Your task to perform on an android device: What's the weather today? Image 0: 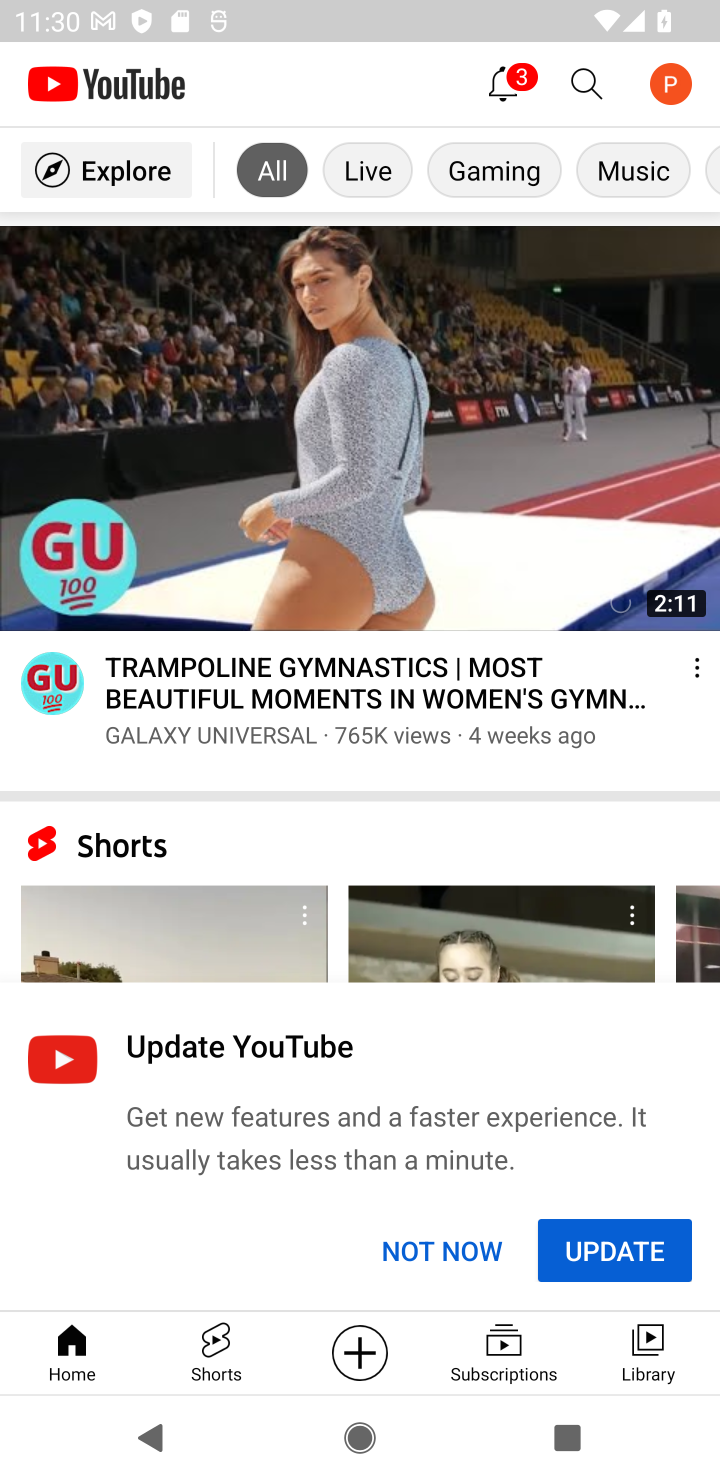
Step 0: press home button
Your task to perform on an android device: What's the weather today? Image 1: 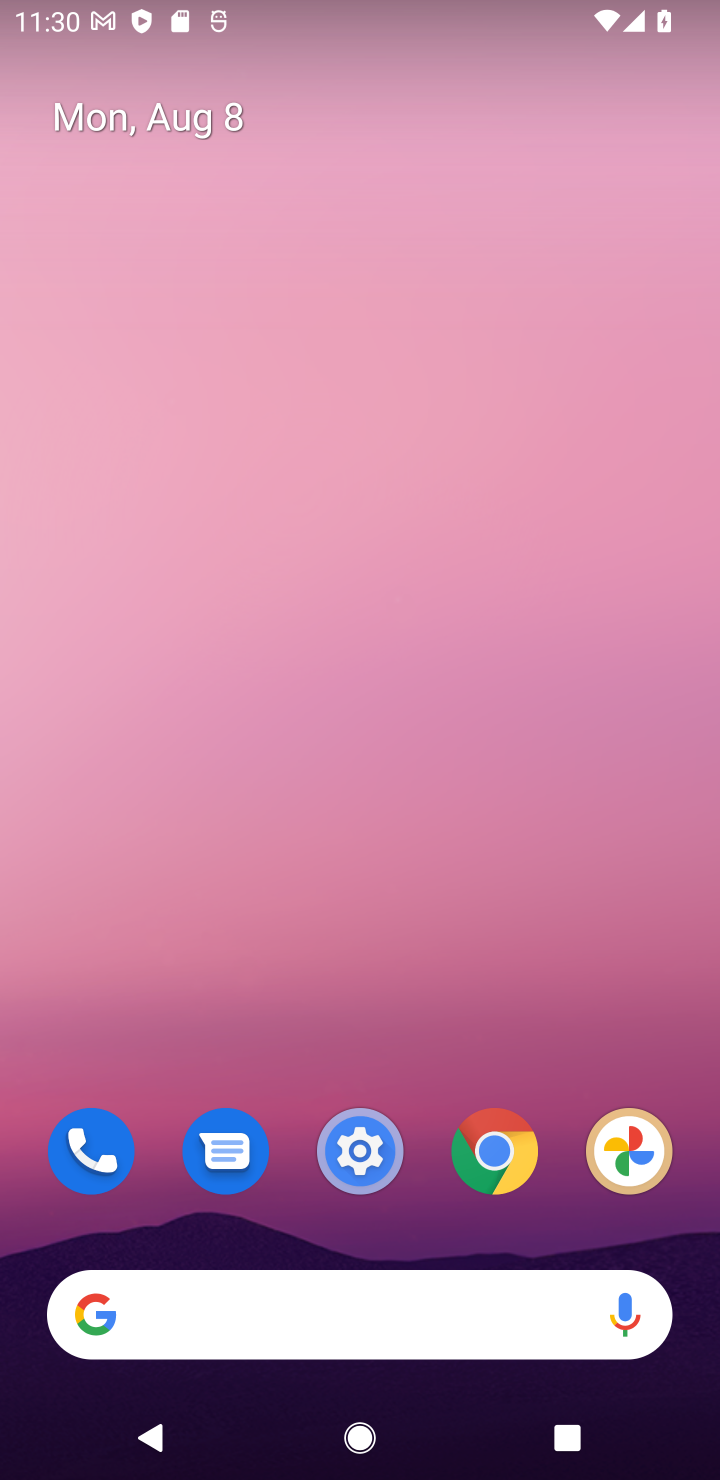
Step 1: drag from (243, 1217) to (251, 296)
Your task to perform on an android device: What's the weather today? Image 2: 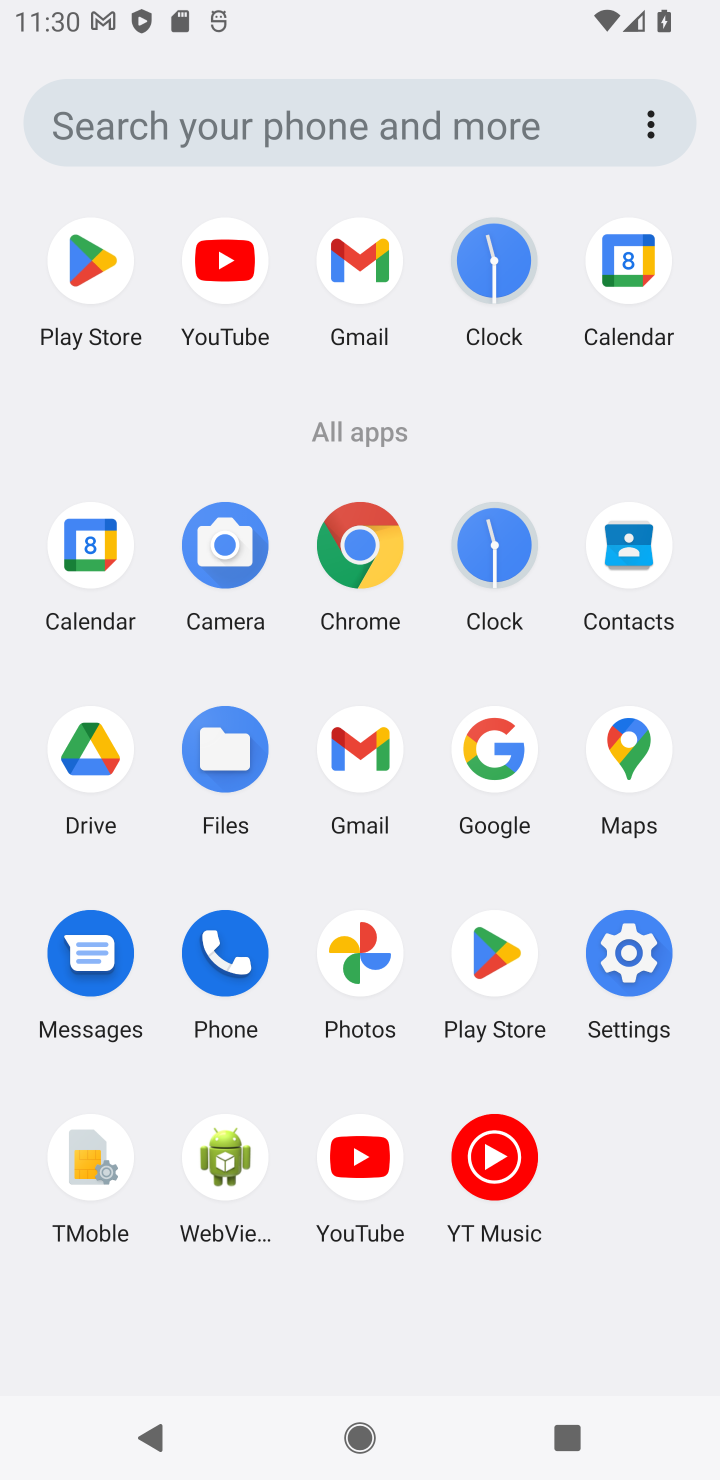
Step 2: click (620, 960)
Your task to perform on an android device: What's the weather today? Image 3: 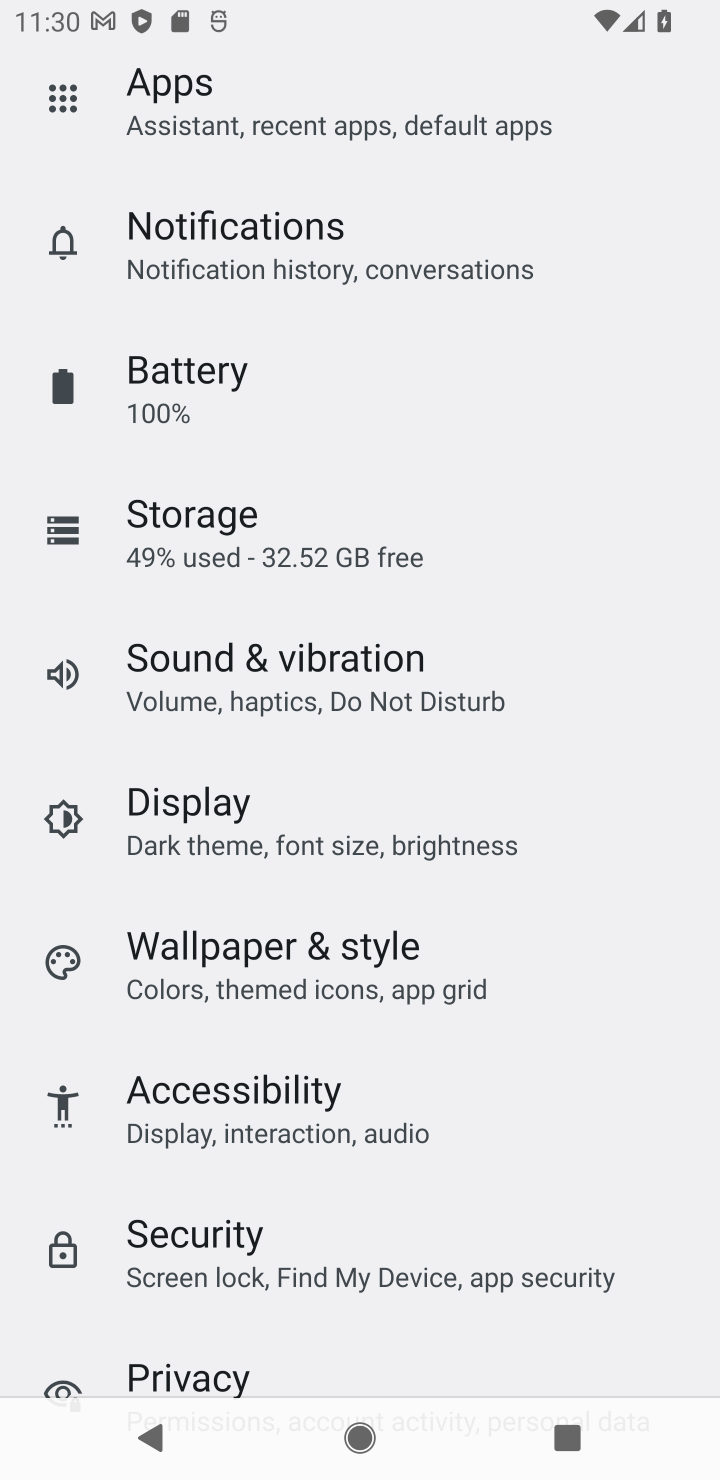
Step 3: press home button
Your task to perform on an android device: What's the weather today? Image 4: 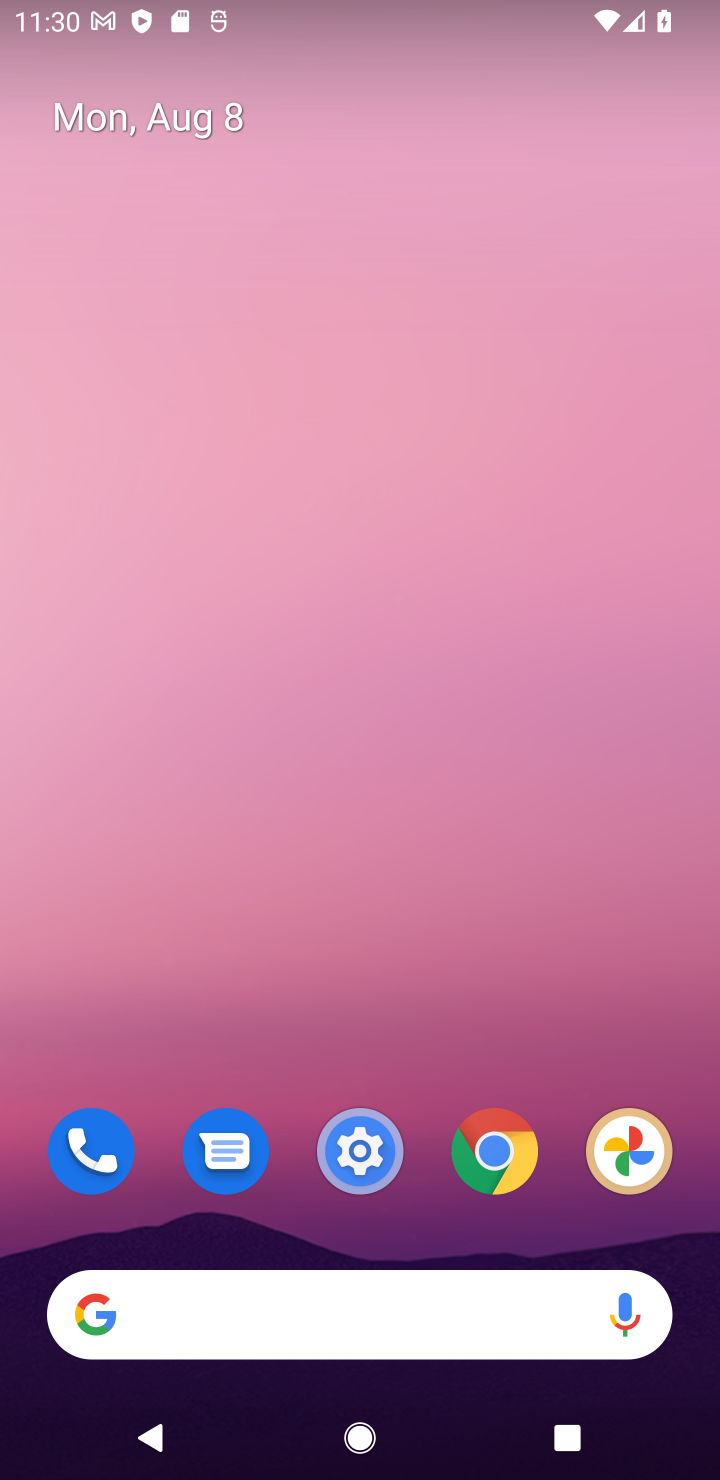
Step 4: drag from (346, 1016) to (346, 585)
Your task to perform on an android device: What's the weather today? Image 5: 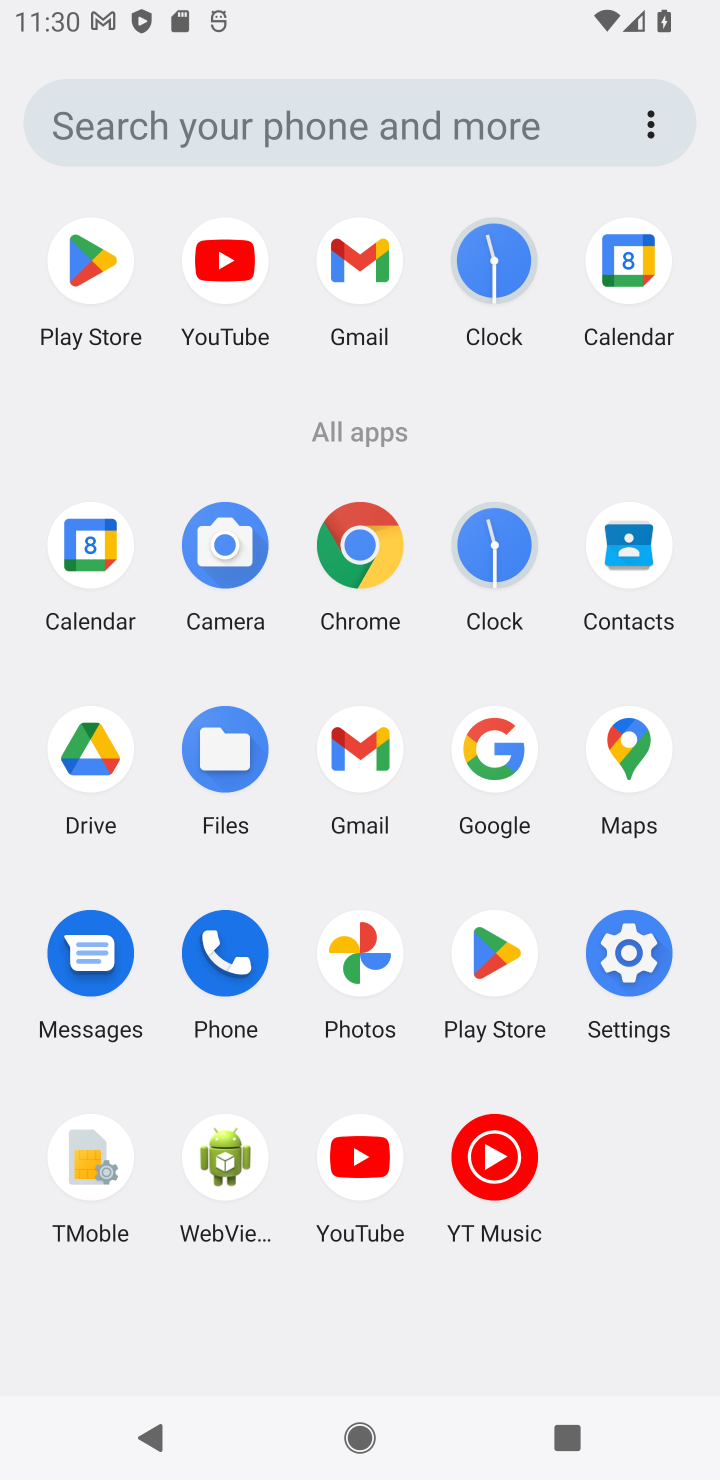
Step 5: click (486, 747)
Your task to perform on an android device: What's the weather today? Image 6: 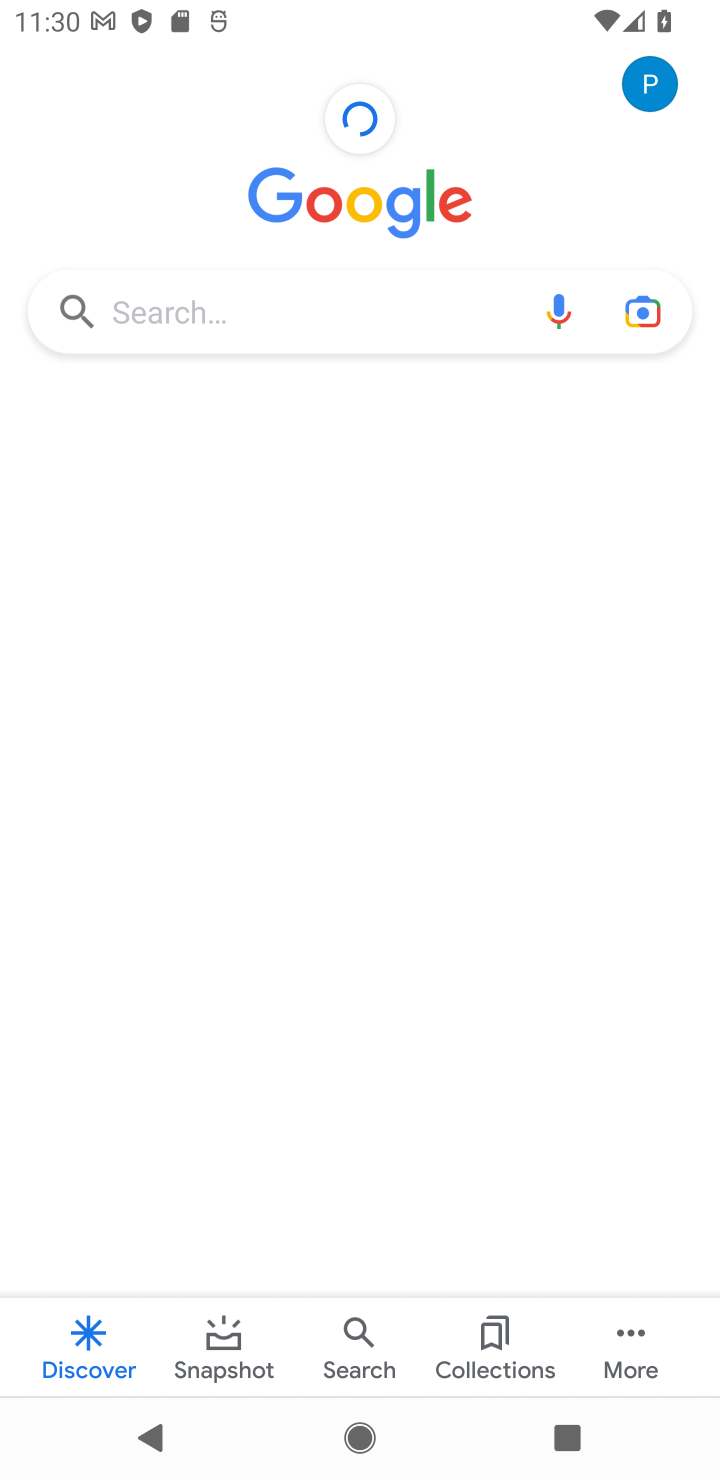
Step 6: click (274, 313)
Your task to perform on an android device: What's the weather today? Image 7: 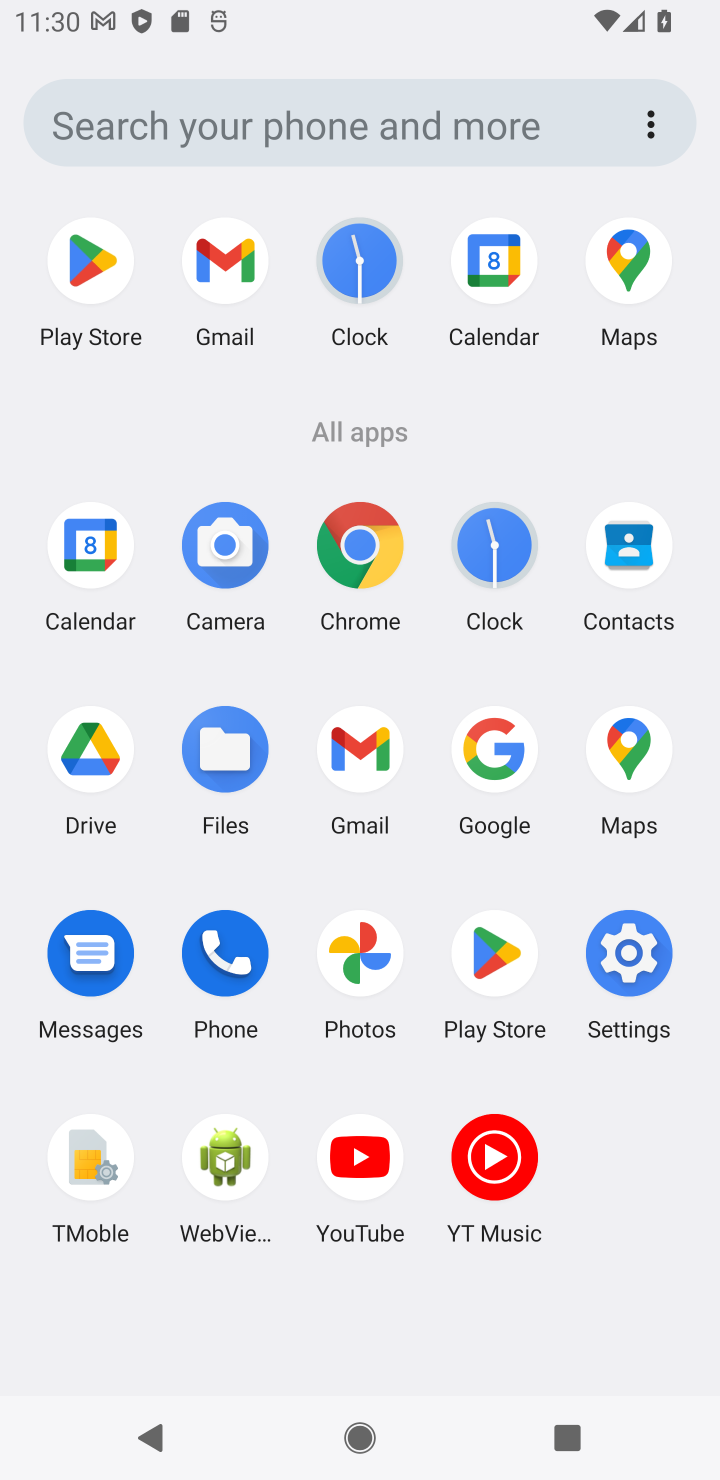
Step 7: click (506, 746)
Your task to perform on an android device: What's the weather today? Image 8: 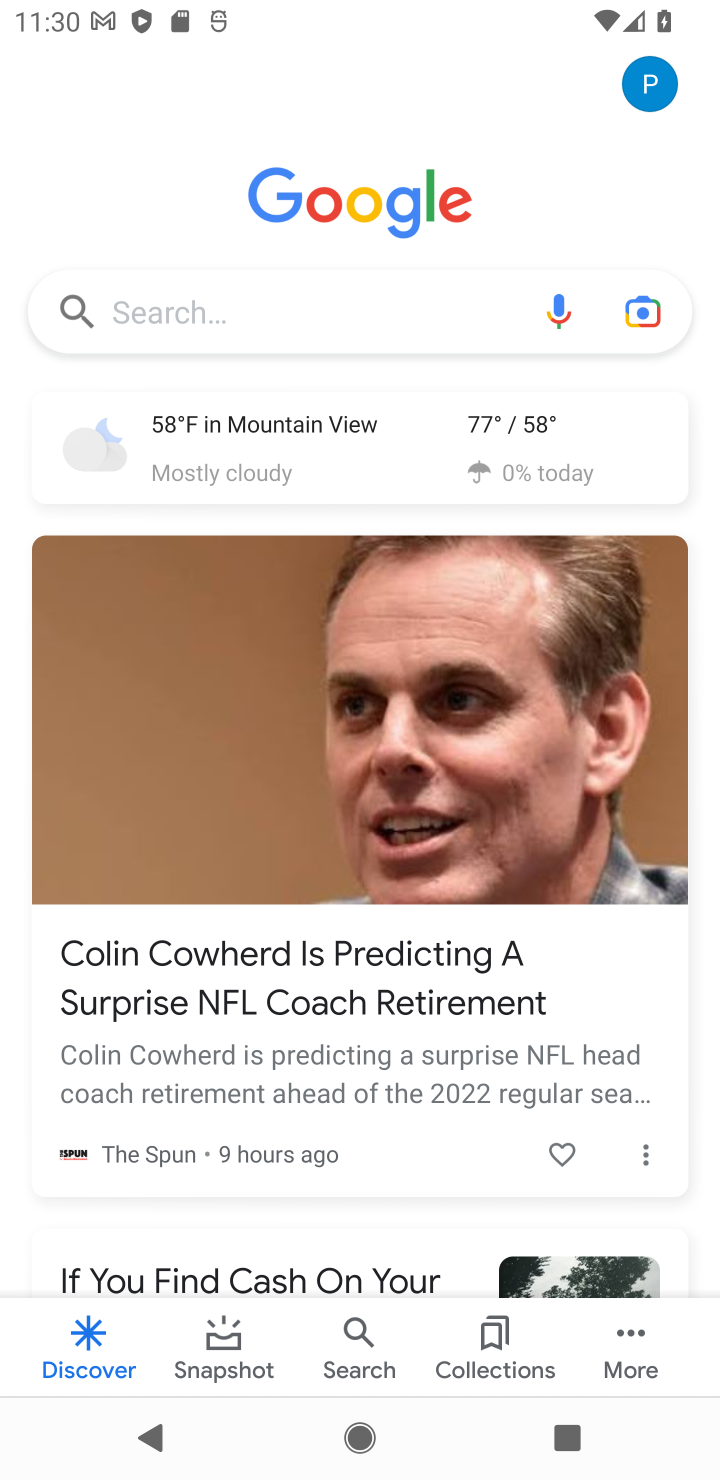
Step 8: click (156, 321)
Your task to perform on an android device: What's the weather today? Image 9: 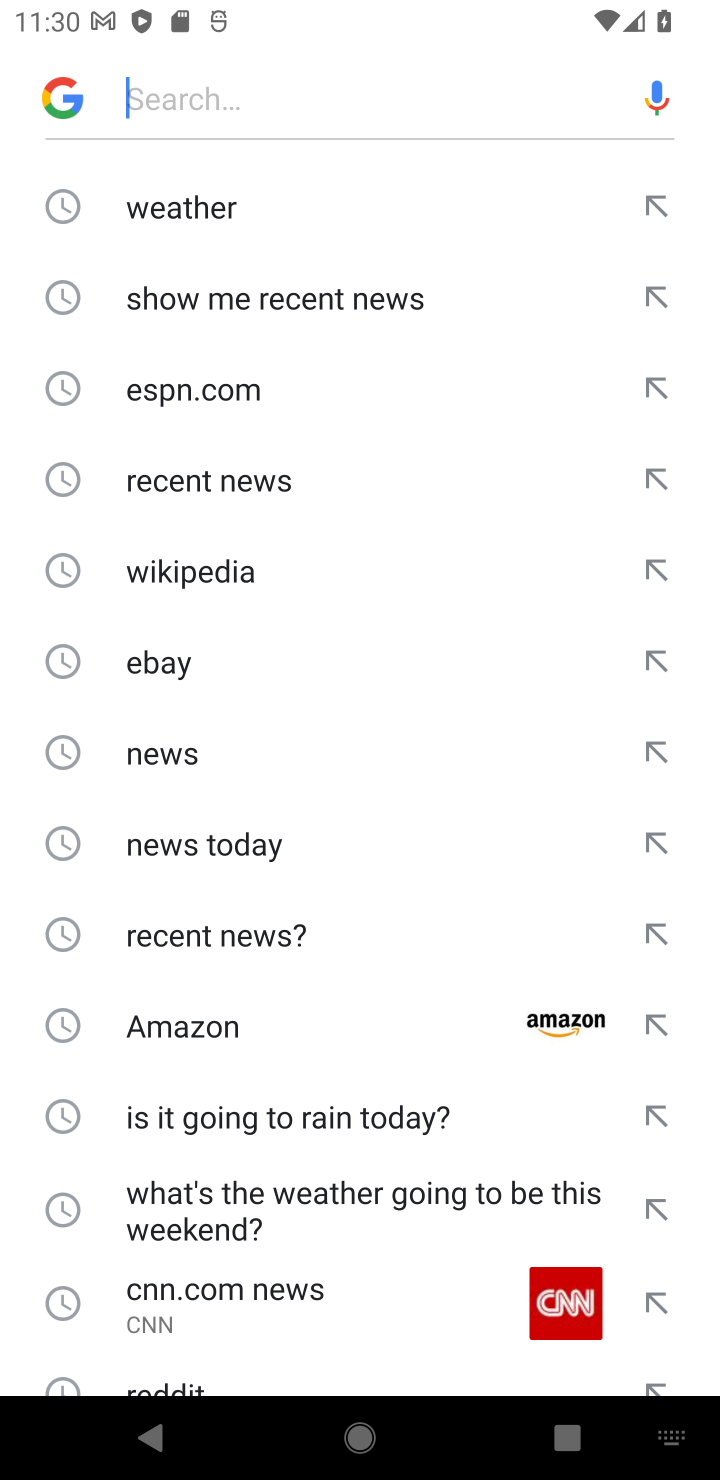
Step 9: click (204, 211)
Your task to perform on an android device: What's the weather today? Image 10: 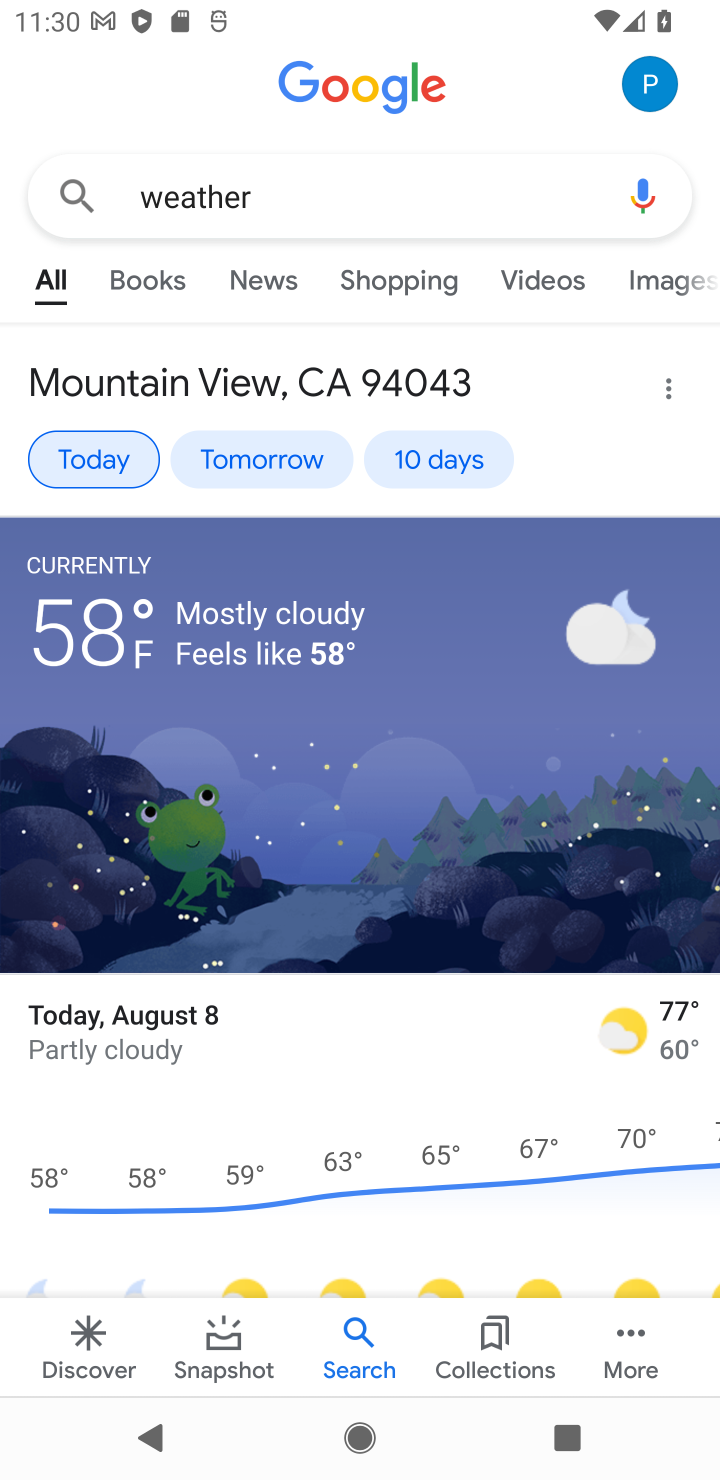
Step 10: task complete